Your task to perform on an android device: check google app version Image 0: 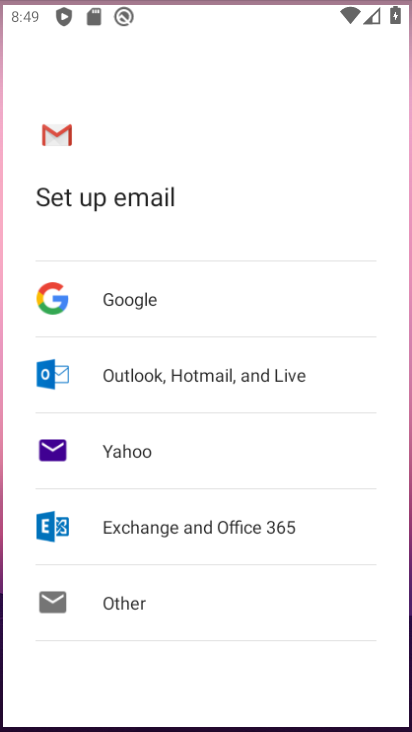
Step 0: drag from (391, 632) to (327, 25)
Your task to perform on an android device: check google app version Image 1: 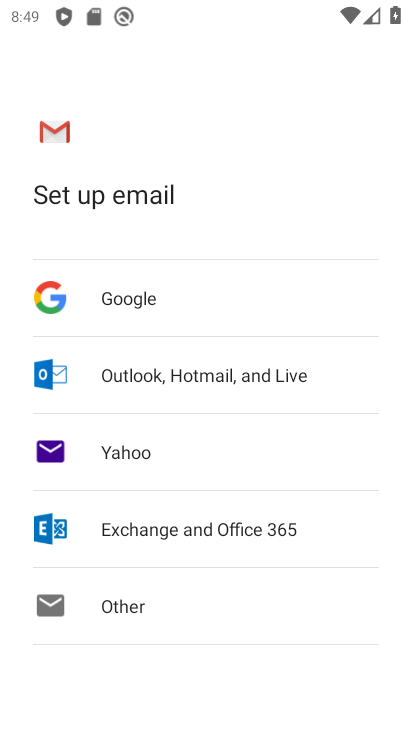
Step 1: press home button
Your task to perform on an android device: check google app version Image 2: 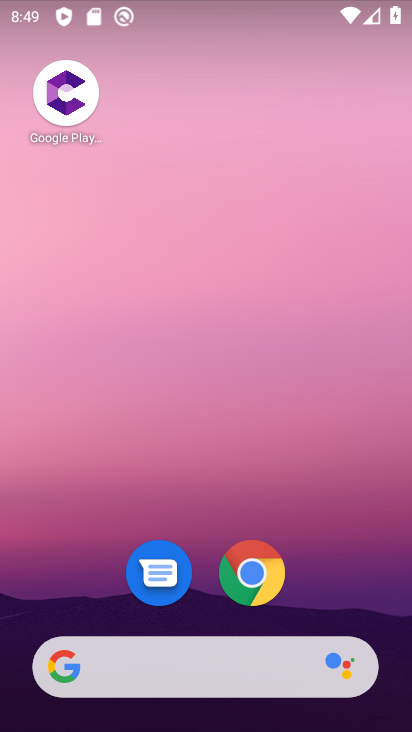
Step 2: drag from (380, 602) to (333, 41)
Your task to perform on an android device: check google app version Image 3: 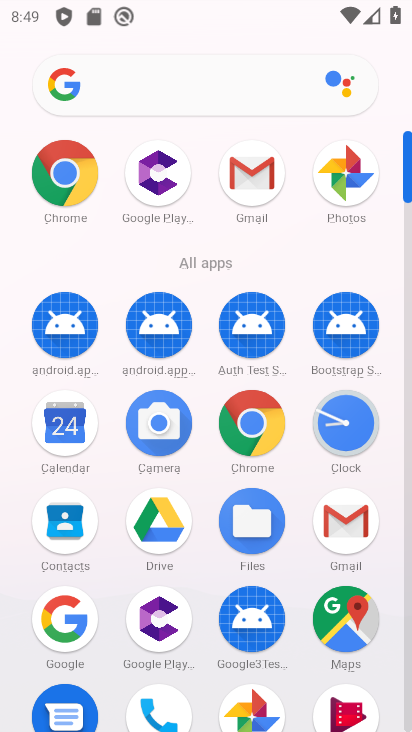
Step 3: click (410, 614)
Your task to perform on an android device: check google app version Image 4: 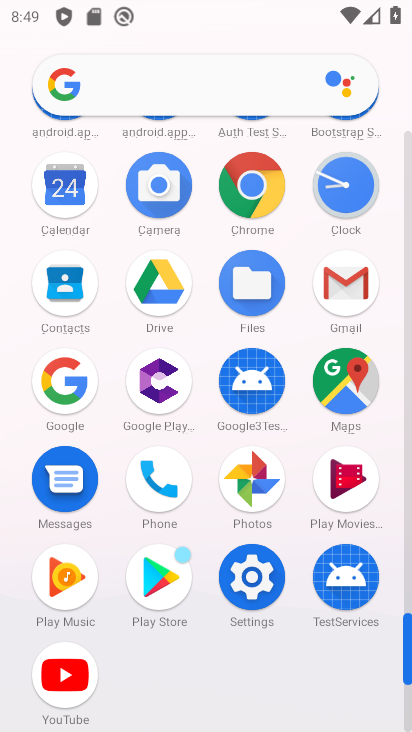
Step 4: click (250, 184)
Your task to perform on an android device: check google app version Image 5: 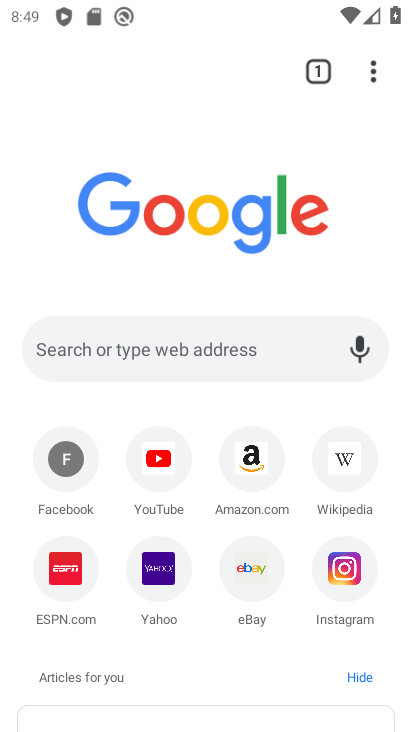
Step 5: click (370, 78)
Your task to perform on an android device: check google app version Image 6: 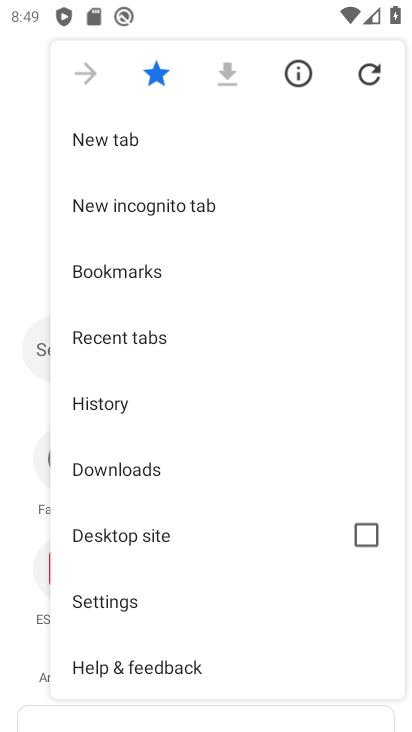
Step 6: drag from (198, 557) to (239, 206)
Your task to perform on an android device: check google app version Image 7: 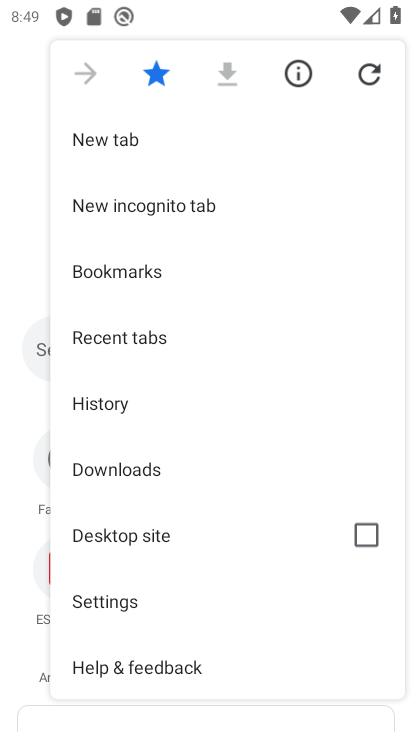
Step 7: click (112, 600)
Your task to perform on an android device: check google app version Image 8: 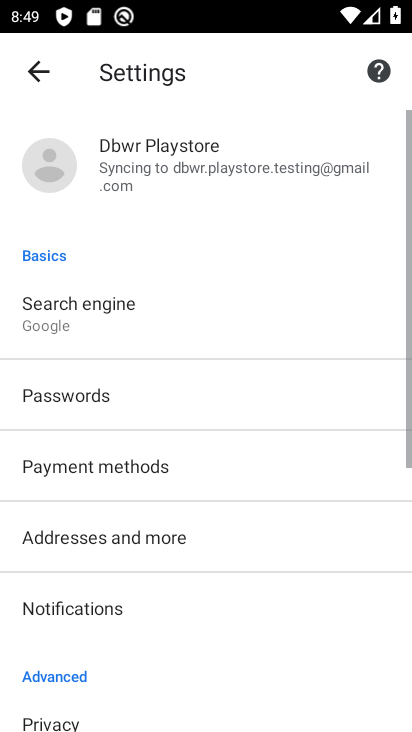
Step 8: drag from (270, 650) to (205, 124)
Your task to perform on an android device: check google app version Image 9: 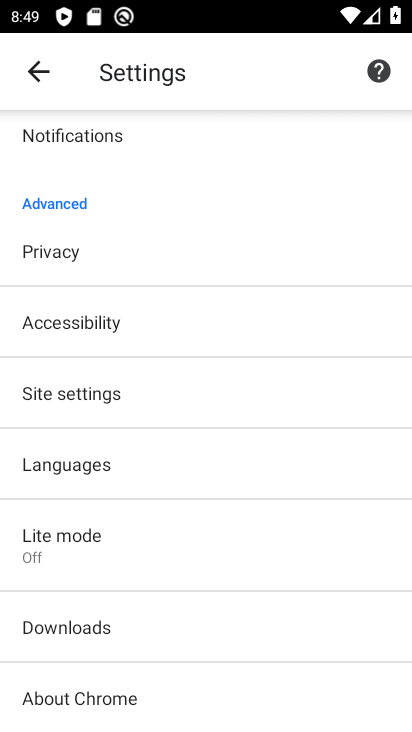
Step 9: click (82, 694)
Your task to perform on an android device: check google app version Image 10: 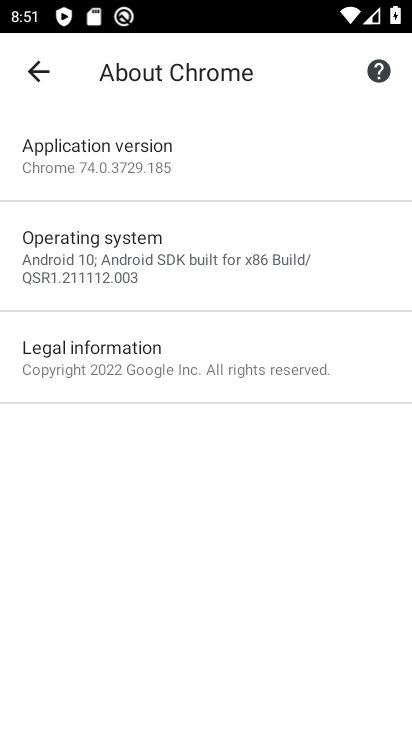
Step 10: task complete